Your task to perform on an android device: change the clock display to analog Image 0: 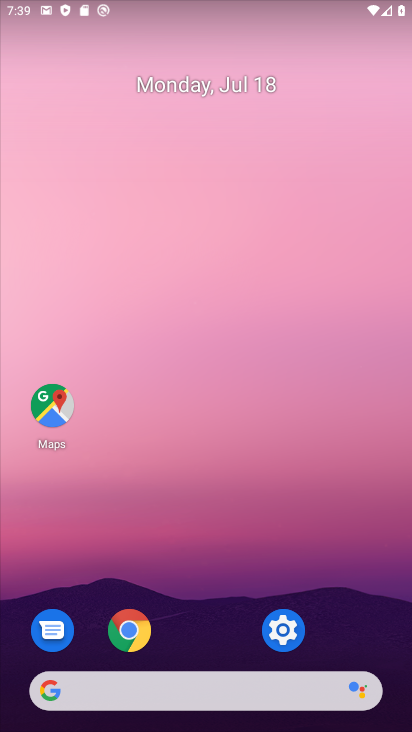
Step 0: press home button
Your task to perform on an android device: change the clock display to analog Image 1: 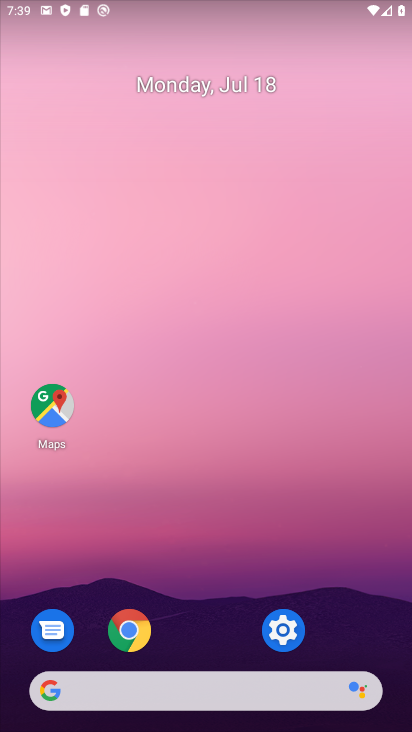
Step 1: drag from (261, 706) to (190, 98)
Your task to perform on an android device: change the clock display to analog Image 2: 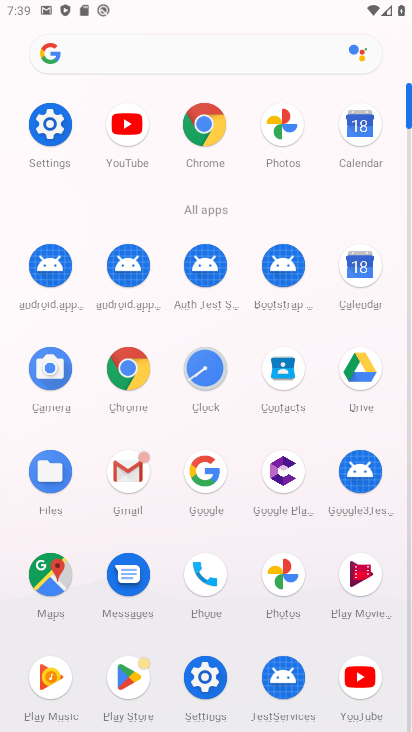
Step 2: click (204, 372)
Your task to perform on an android device: change the clock display to analog Image 3: 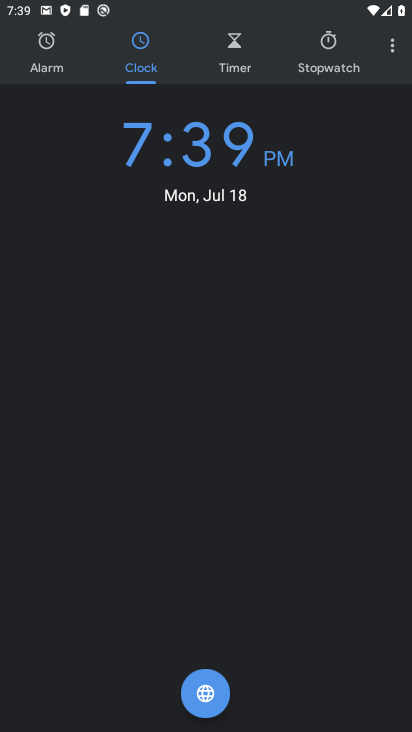
Step 3: click (394, 51)
Your task to perform on an android device: change the clock display to analog Image 4: 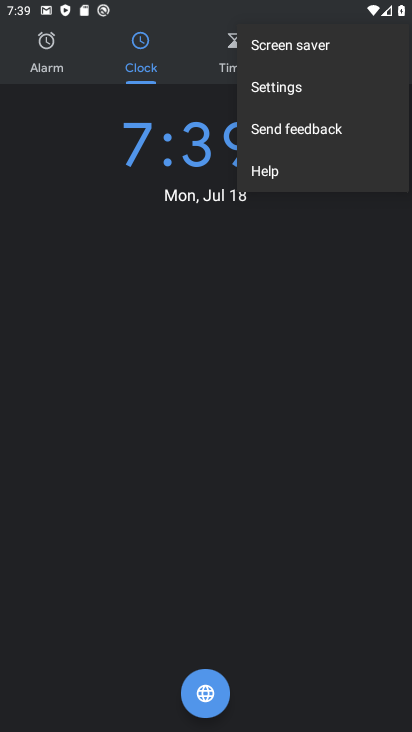
Step 4: click (296, 90)
Your task to perform on an android device: change the clock display to analog Image 5: 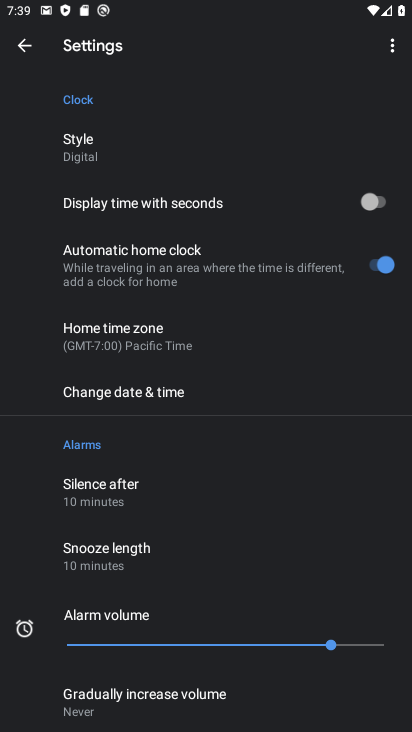
Step 5: click (112, 146)
Your task to perform on an android device: change the clock display to analog Image 6: 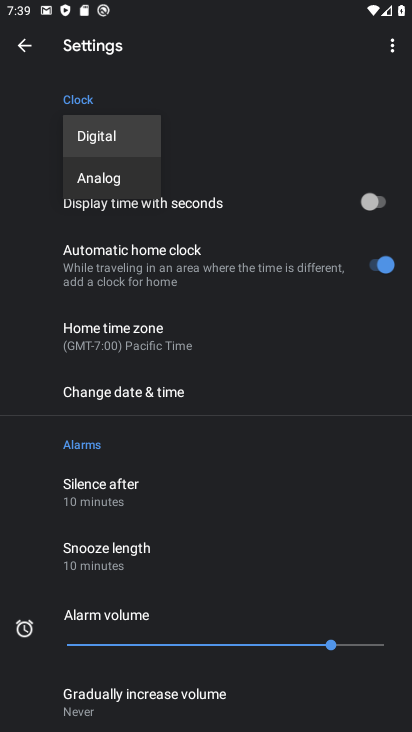
Step 6: click (86, 179)
Your task to perform on an android device: change the clock display to analog Image 7: 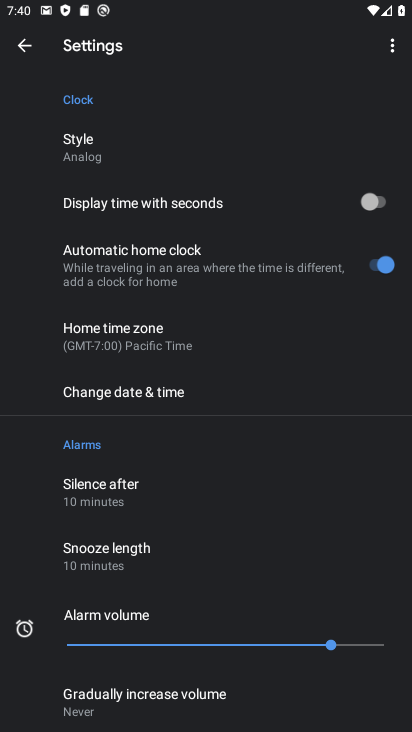
Step 7: task complete